Your task to perform on an android device: Add "alienware aurora" to the cart on target.com Image 0: 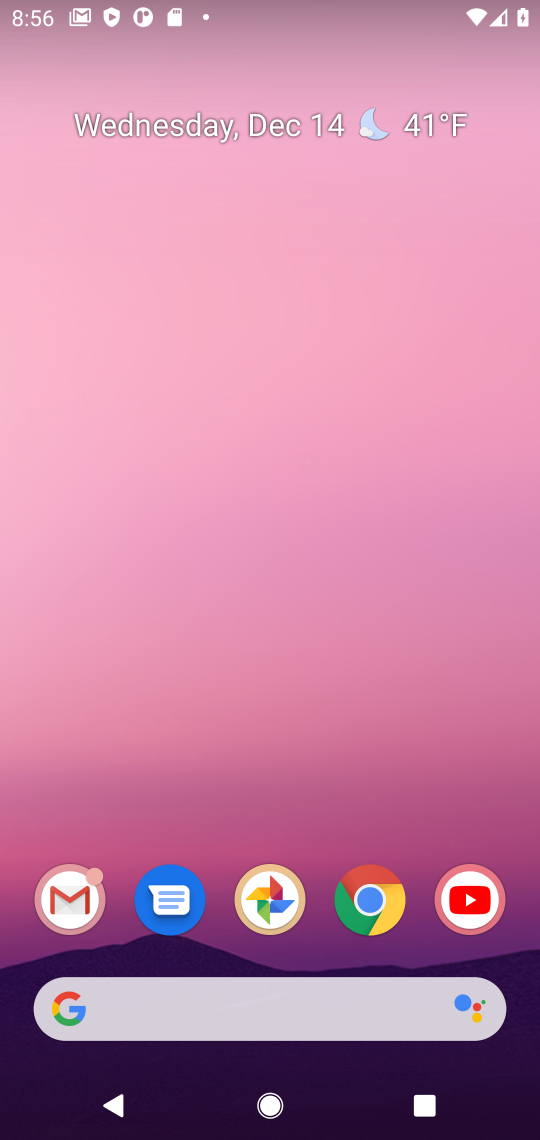
Step 0: click (368, 902)
Your task to perform on an android device: Add "alienware aurora" to the cart on target.com Image 1: 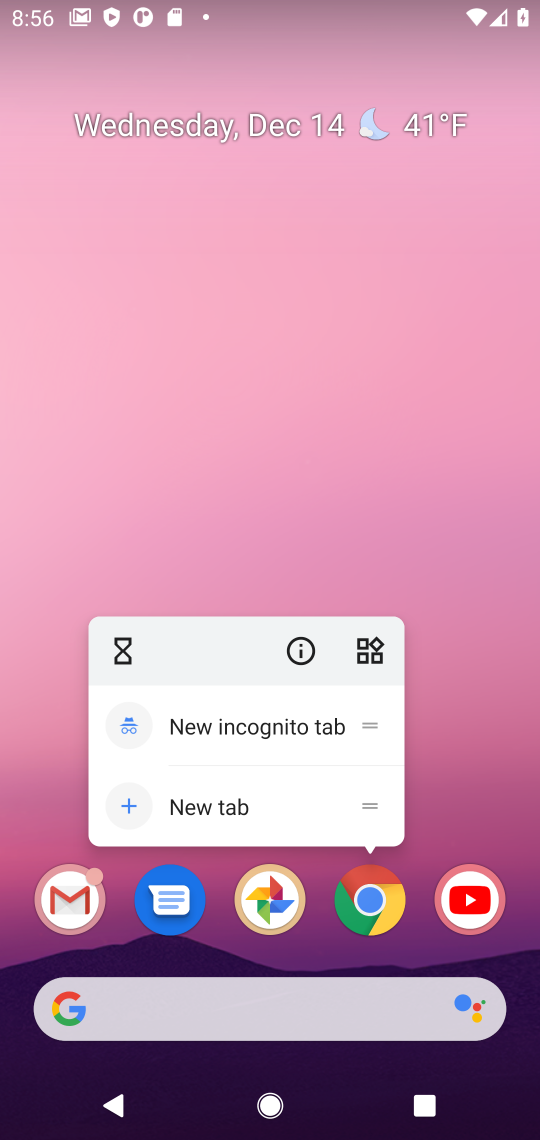
Step 1: click (368, 902)
Your task to perform on an android device: Add "alienware aurora" to the cart on target.com Image 2: 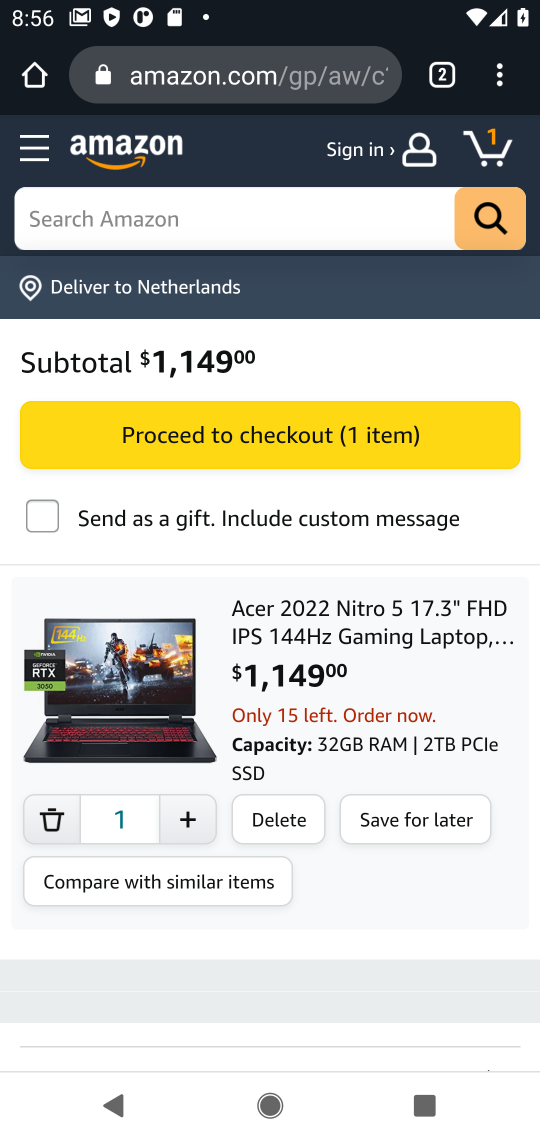
Step 2: click (186, 73)
Your task to perform on an android device: Add "alienware aurora" to the cart on target.com Image 3: 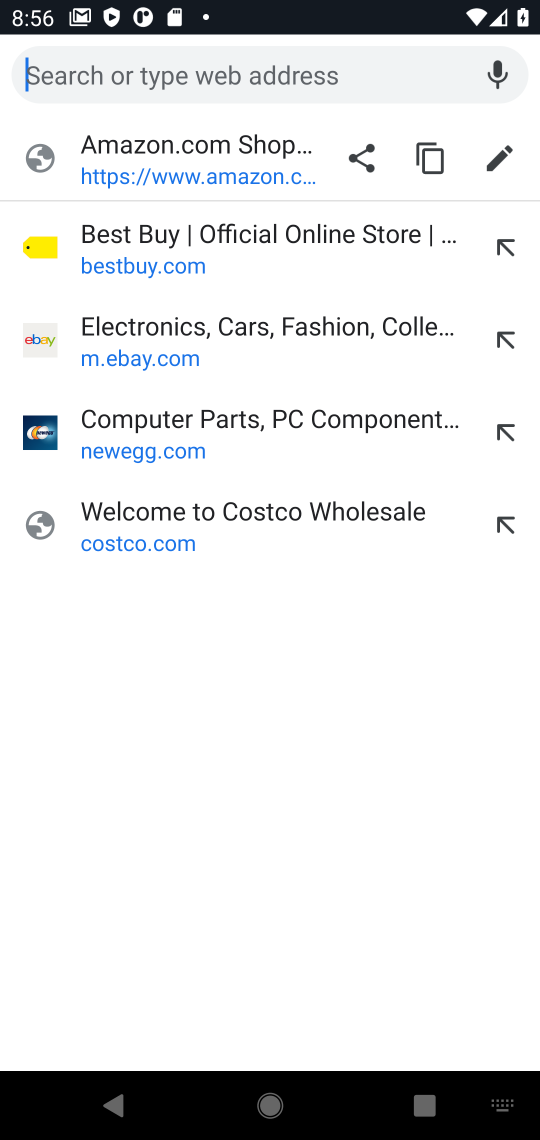
Step 3: type "target.com"
Your task to perform on an android device: Add "alienware aurora" to the cart on target.com Image 4: 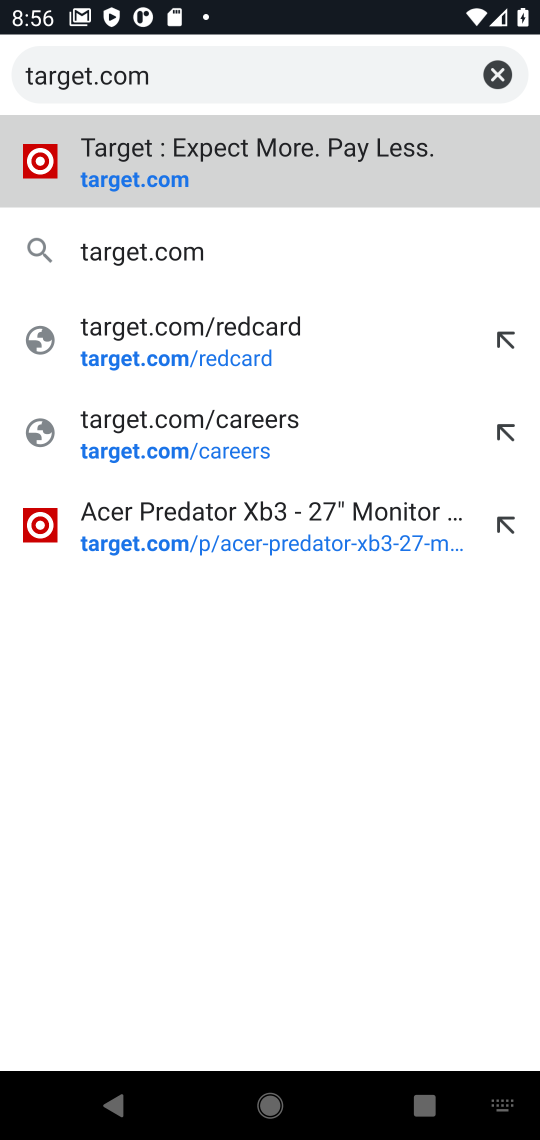
Step 4: click (123, 189)
Your task to perform on an android device: Add "alienware aurora" to the cart on target.com Image 5: 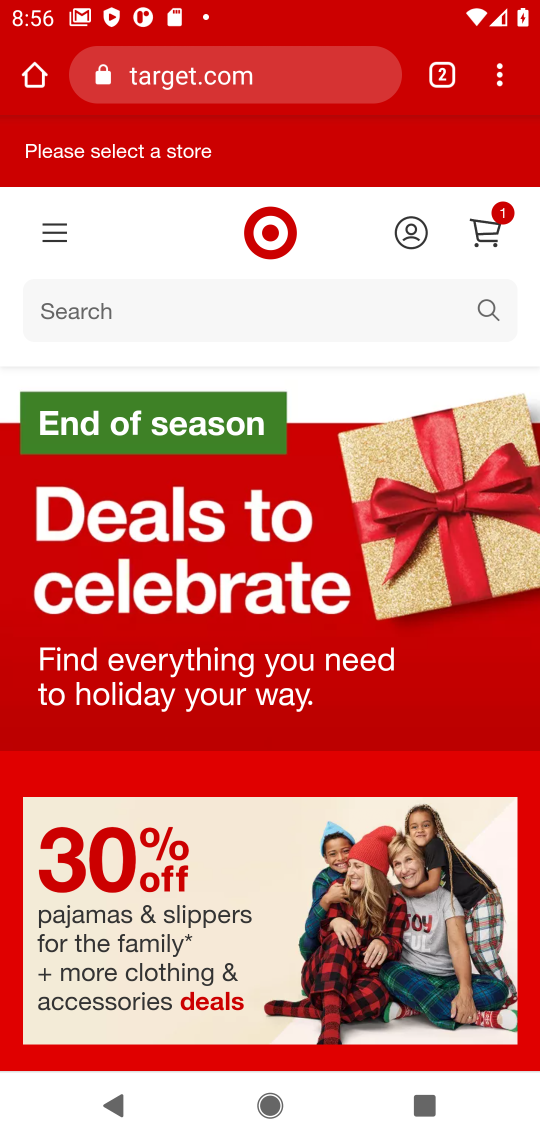
Step 5: click (46, 322)
Your task to perform on an android device: Add "alienware aurora" to the cart on target.com Image 6: 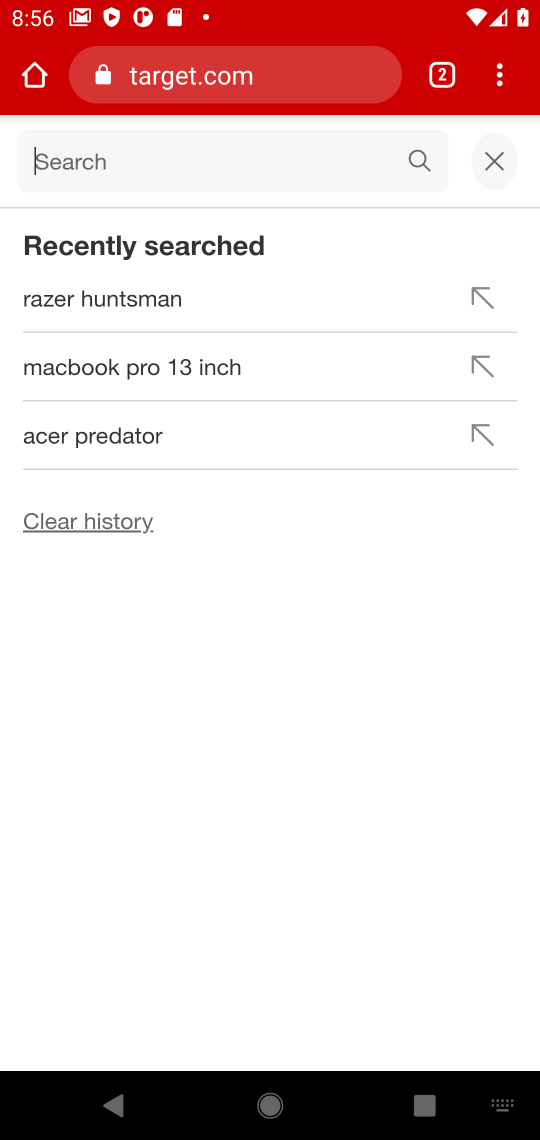
Step 6: type "alienware aurora"
Your task to perform on an android device: Add "alienware aurora" to the cart on target.com Image 7: 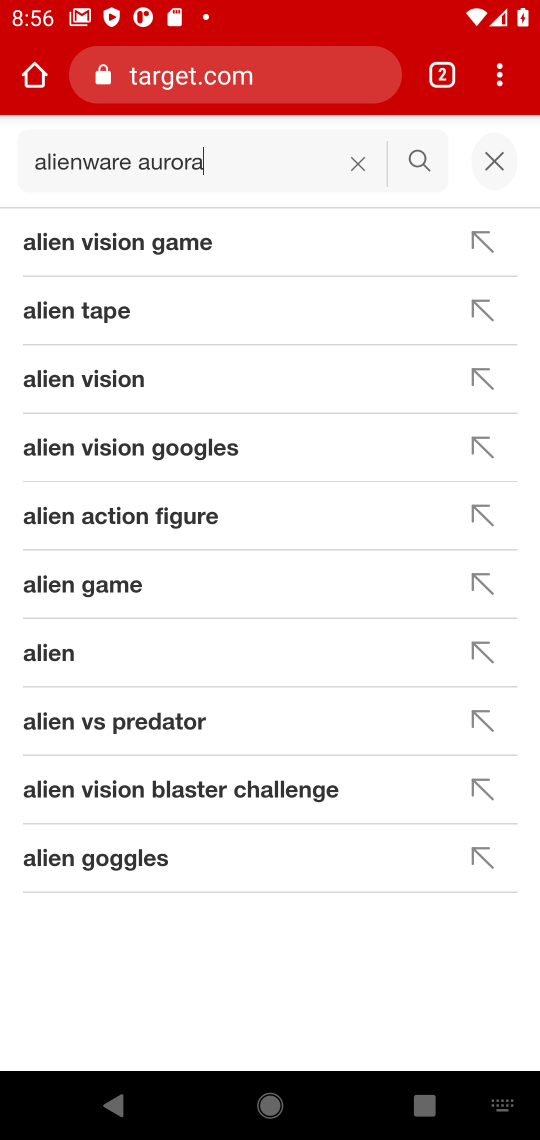
Step 7: click (412, 154)
Your task to perform on an android device: Add "alienware aurora" to the cart on target.com Image 8: 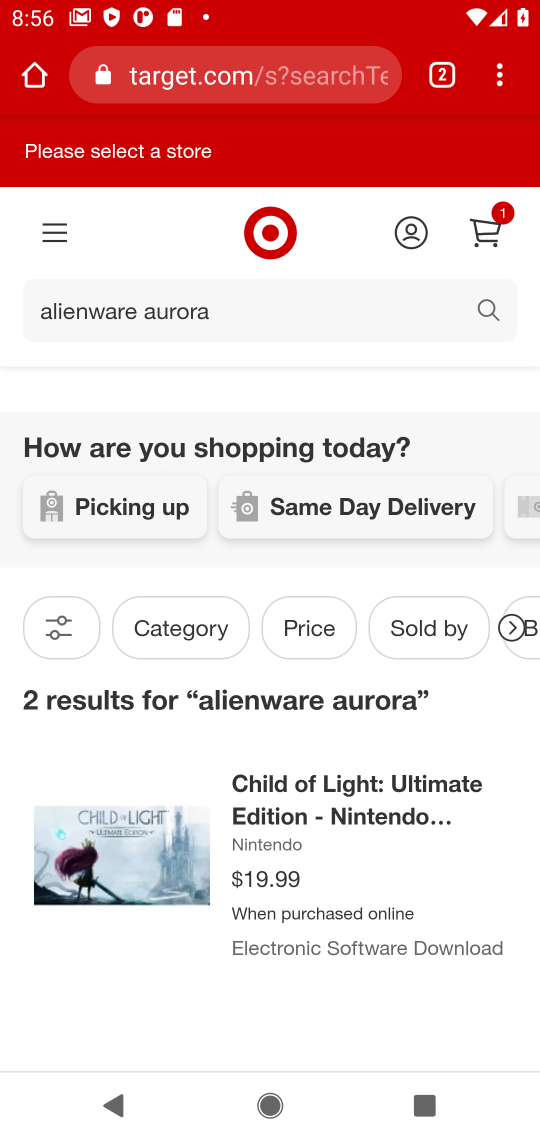
Step 8: task complete